Your task to perform on an android device: toggle wifi Image 0: 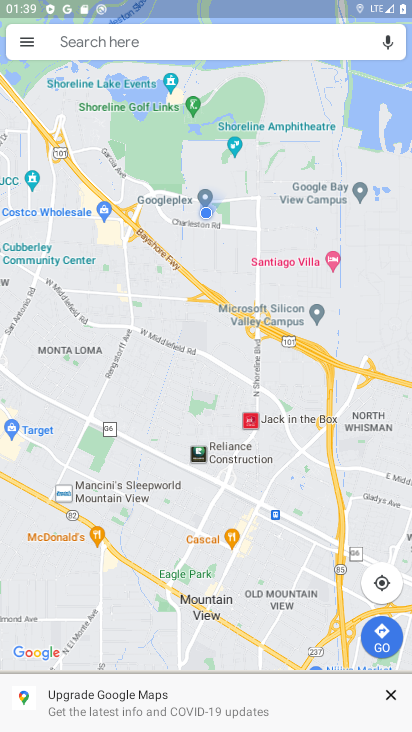
Step 0: press home button
Your task to perform on an android device: toggle wifi Image 1: 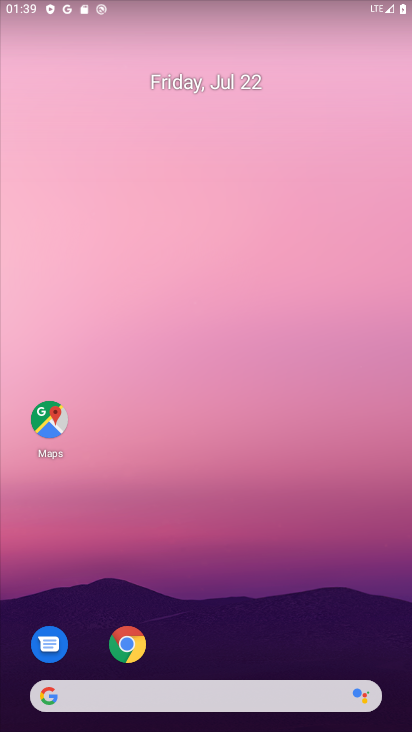
Step 1: drag from (225, 603) to (230, 157)
Your task to perform on an android device: toggle wifi Image 2: 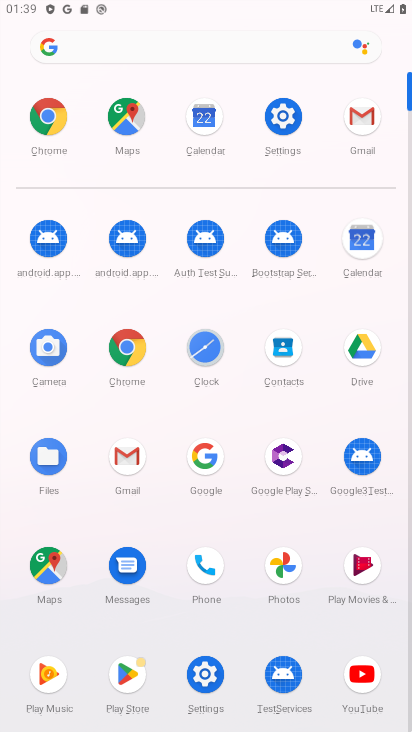
Step 2: click (304, 125)
Your task to perform on an android device: toggle wifi Image 3: 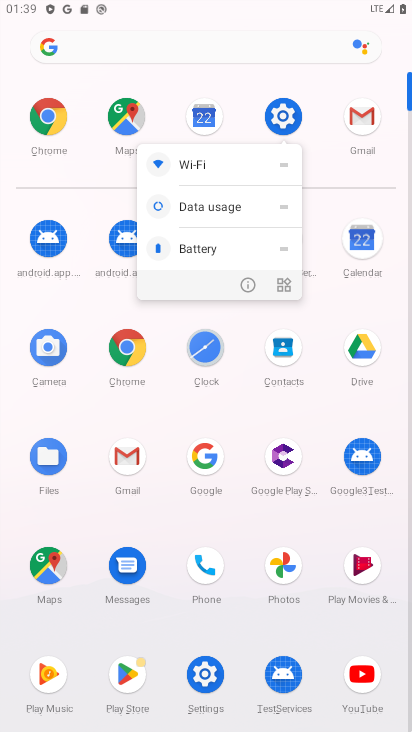
Step 3: click (291, 104)
Your task to perform on an android device: toggle wifi Image 4: 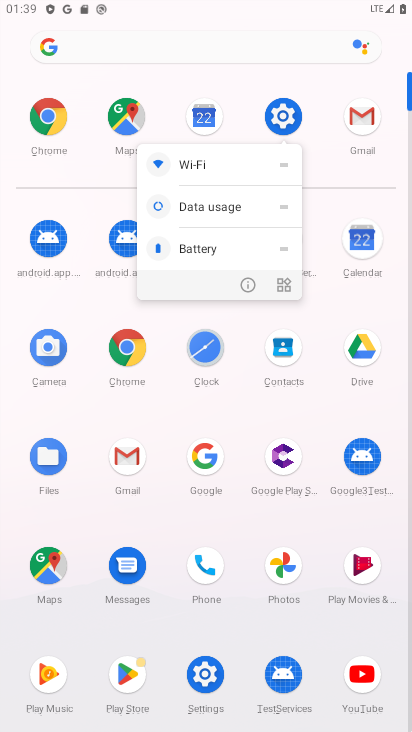
Step 4: click (291, 104)
Your task to perform on an android device: toggle wifi Image 5: 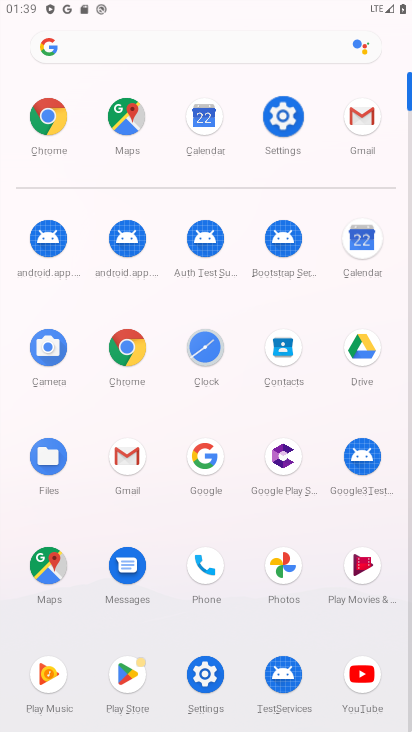
Step 5: click (291, 104)
Your task to perform on an android device: toggle wifi Image 6: 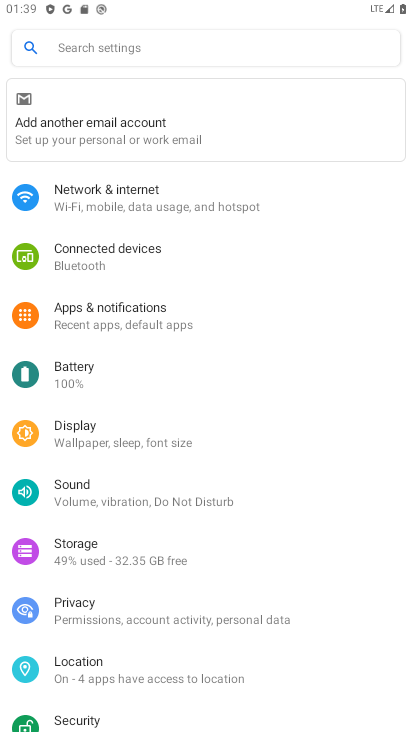
Step 6: click (210, 198)
Your task to perform on an android device: toggle wifi Image 7: 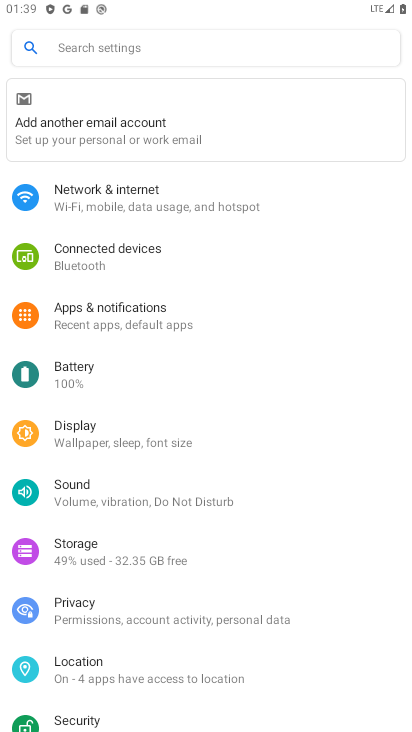
Step 7: click (210, 198)
Your task to perform on an android device: toggle wifi Image 8: 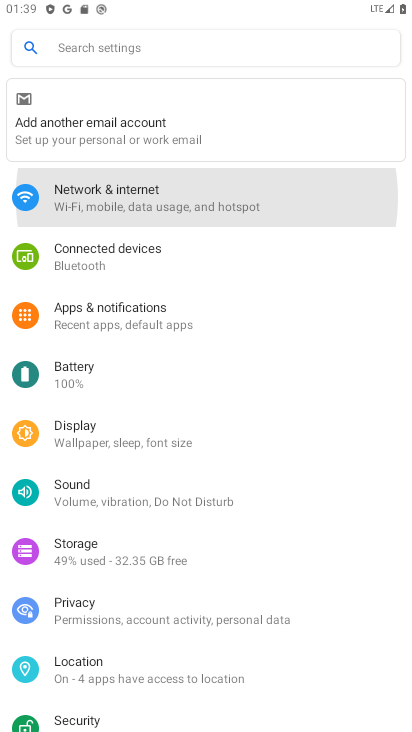
Step 8: click (210, 198)
Your task to perform on an android device: toggle wifi Image 9: 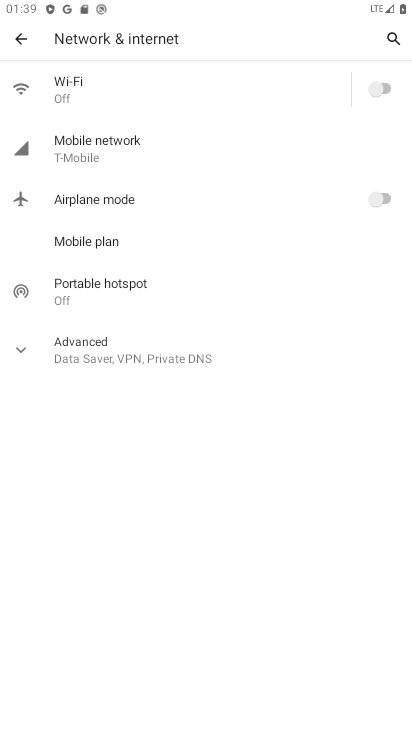
Step 9: click (374, 85)
Your task to perform on an android device: toggle wifi Image 10: 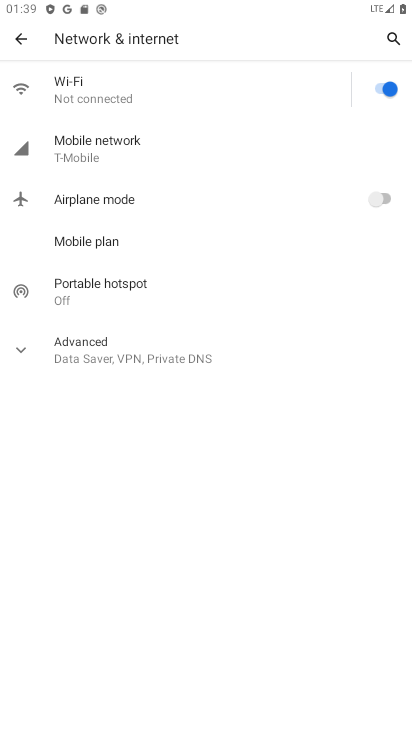
Step 10: task complete